Your task to perform on an android device: See recent photos Image 0: 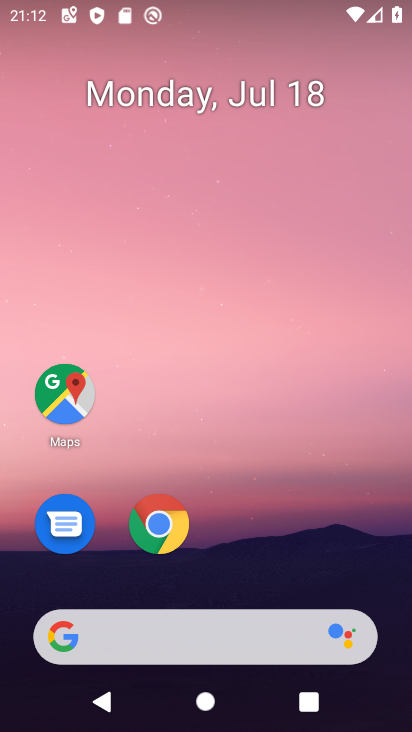
Step 0: drag from (280, 543) to (223, 12)
Your task to perform on an android device: See recent photos Image 1: 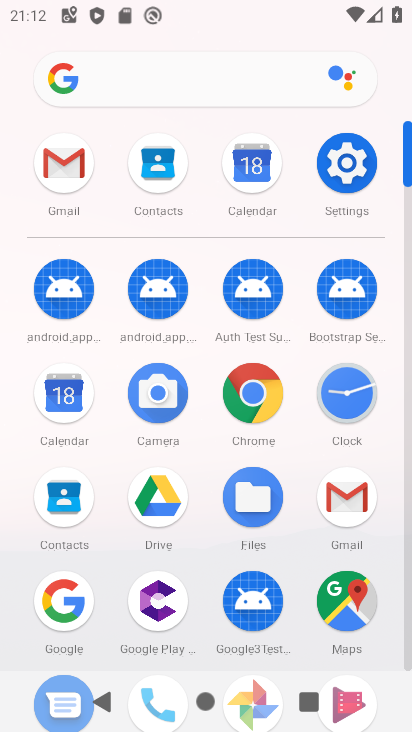
Step 1: drag from (282, 467) to (289, 239)
Your task to perform on an android device: See recent photos Image 2: 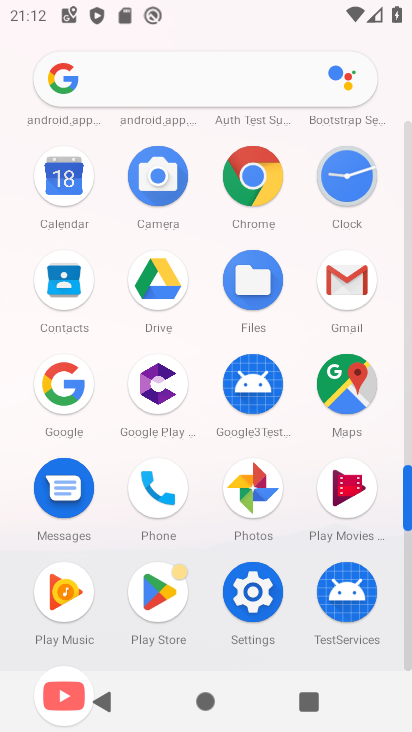
Step 2: click (267, 474)
Your task to perform on an android device: See recent photos Image 3: 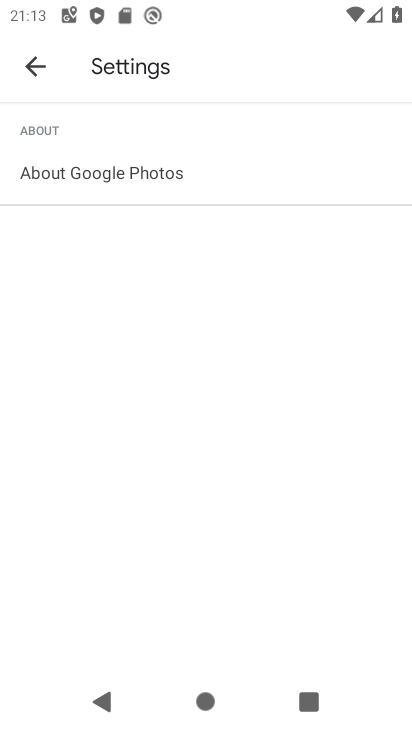
Step 3: click (27, 60)
Your task to perform on an android device: See recent photos Image 4: 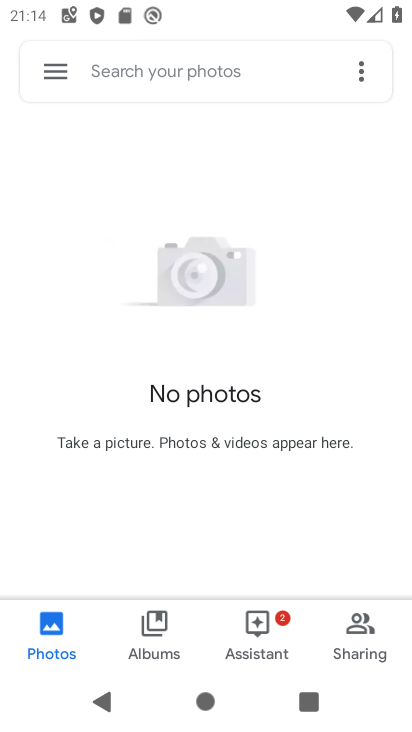
Step 4: task complete